Your task to perform on an android device: Show me recent news Image 0: 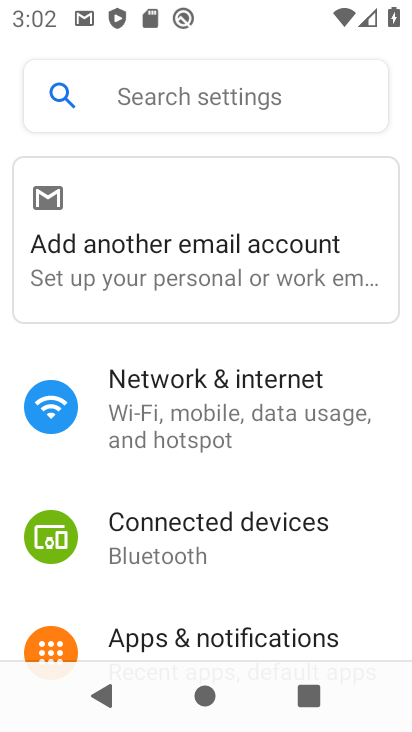
Step 0: press home button
Your task to perform on an android device: Show me recent news Image 1: 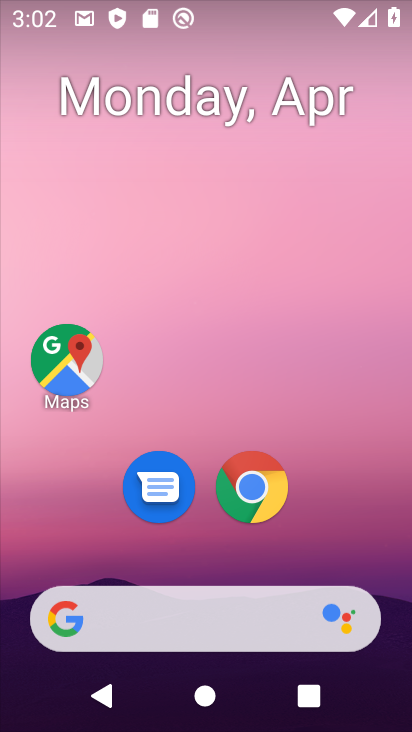
Step 1: task complete